Your task to perform on an android device: find which apps use the phone's location Image 0: 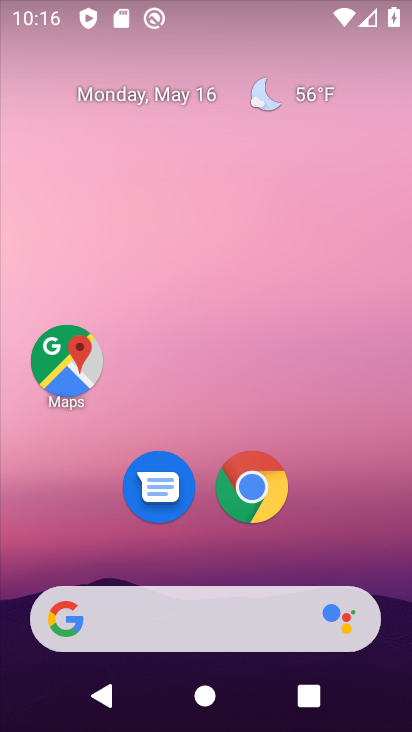
Step 0: drag from (283, 529) to (251, 15)
Your task to perform on an android device: find which apps use the phone's location Image 1: 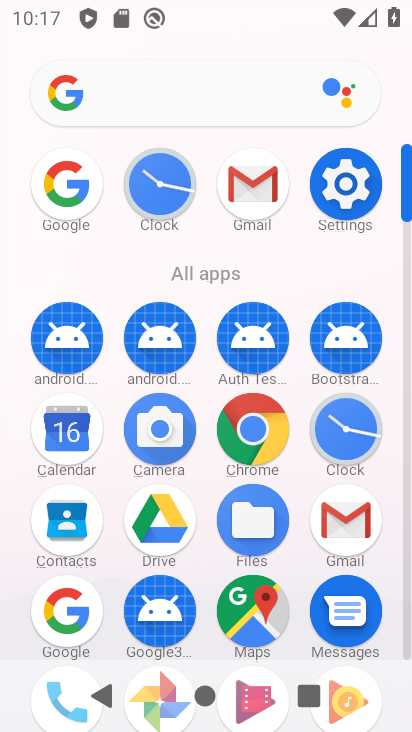
Step 1: click (346, 185)
Your task to perform on an android device: find which apps use the phone's location Image 2: 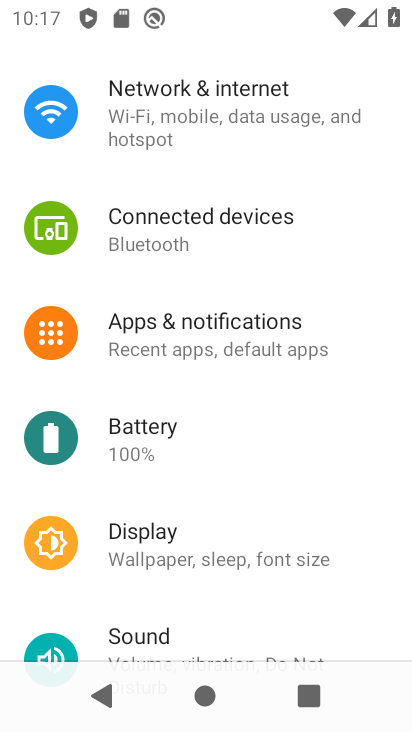
Step 2: drag from (160, 619) to (147, 127)
Your task to perform on an android device: find which apps use the phone's location Image 3: 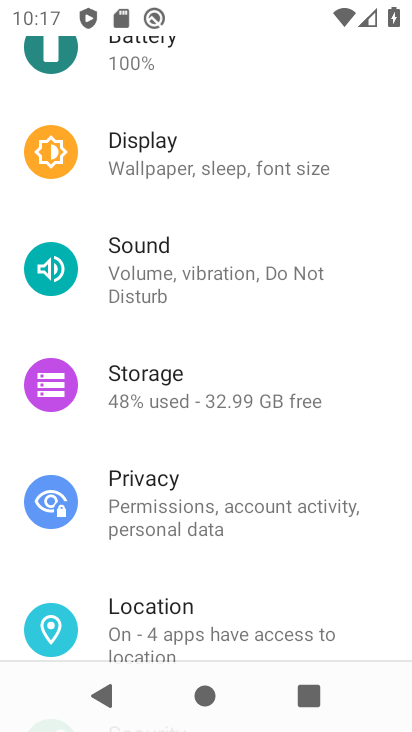
Step 3: drag from (151, 542) to (196, 219)
Your task to perform on an android device: find which apps use the phone's location Image 4: 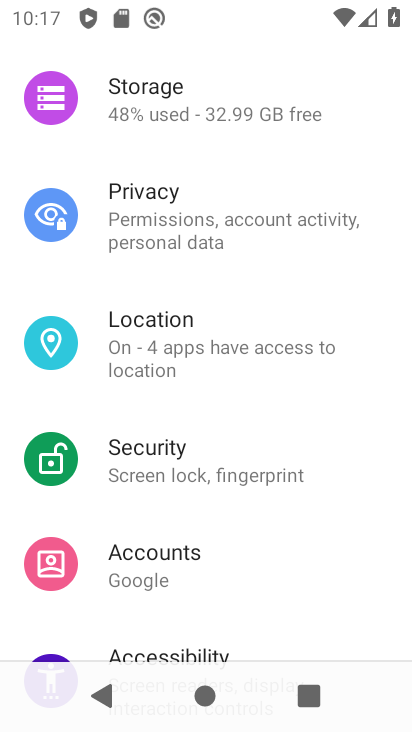
Step 4: click (147, 368)
Your task to perform on an android device: find which apps use the phone's location Image 5: 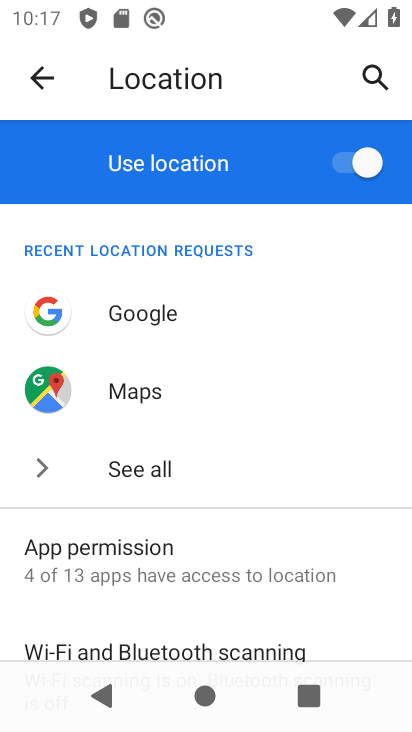
Step 5: click (124, 559)
Your task to perform on an android device: find which apps use the phone's location Image 6: 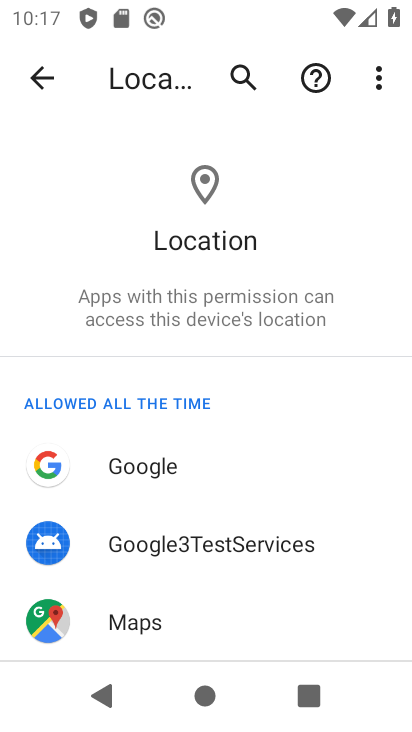
Step 6: task complete